Your task to perform on an android device: Open my contact list Image 0: 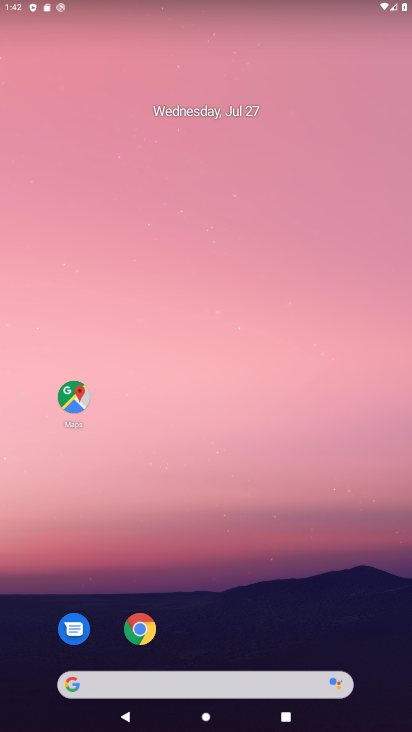
Step 0: drag from (222, 639) to (222, 125)
Your task to perform on an android device: Open my contact list Image 1: 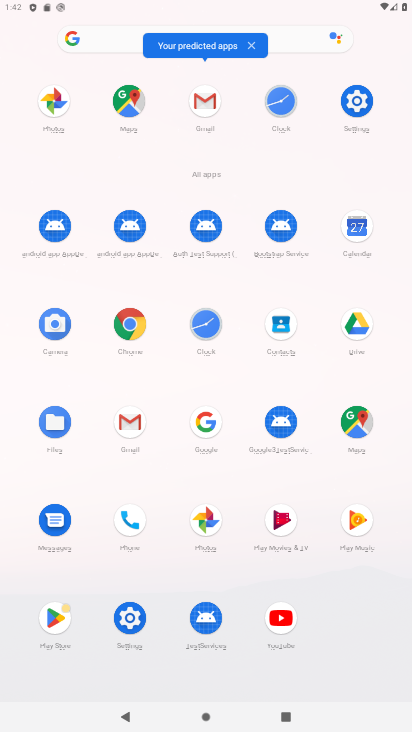
Step 1: click (278, 331)
Your task to perform on an android device: Open my contact list Image 2: 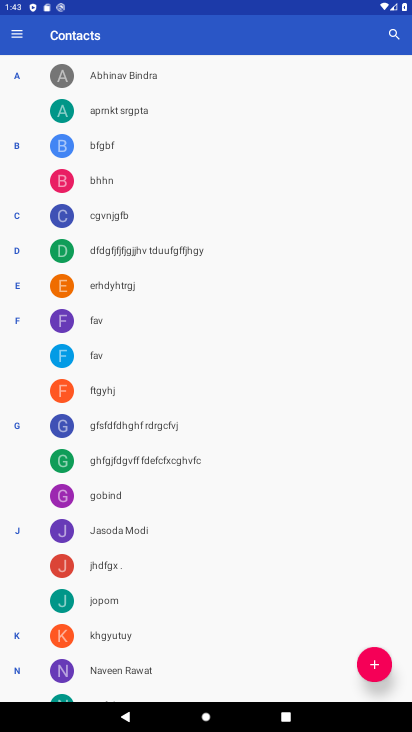
Step 2: task complete